Your task to perform on an android device: open sync settings in chrome Image 0: 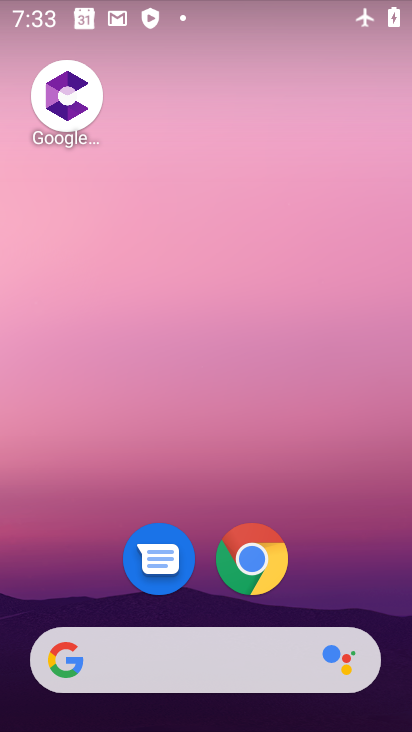
Step 0: click (252, 558)
Your task to perform on an android device: open sync settings in chrome Image 1: 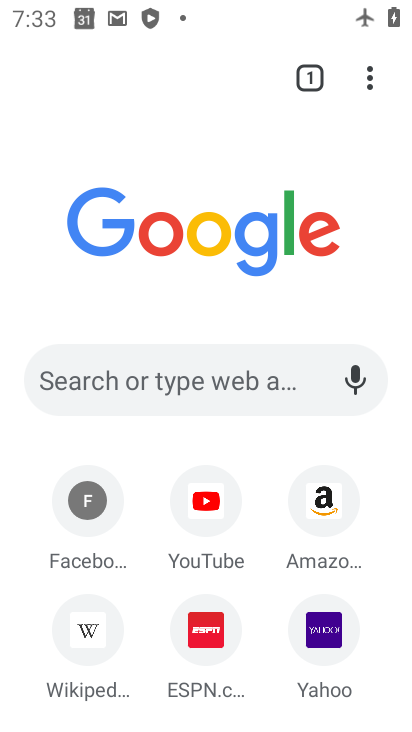
Step 1: click (367, 77)
Your task to perform on an android device: open sync settings in chrome Image 2: 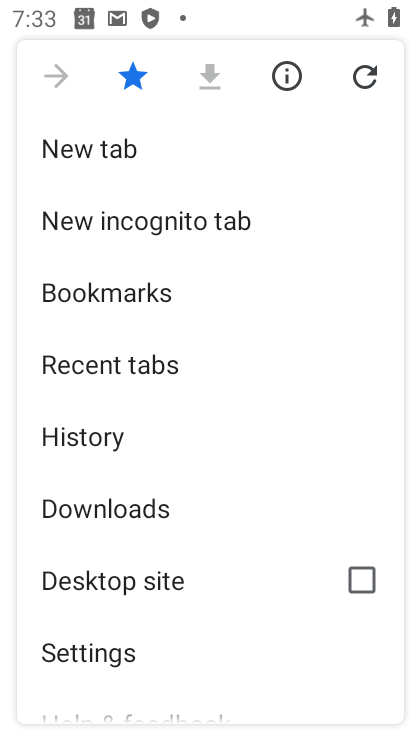
Step 2: click (117, 655)
Your task to perform on an android device: open sync settings in chrome Image 3: 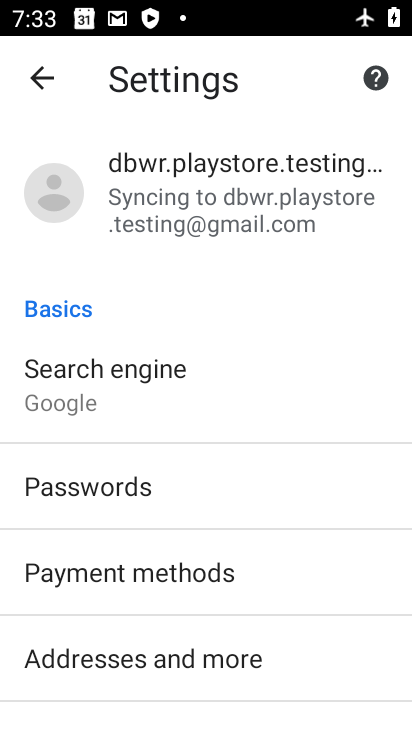
Step 3: drag from (148, 517) to (177, 405)
Your task to perform on an android device: open sync settings in chrome Image 4: 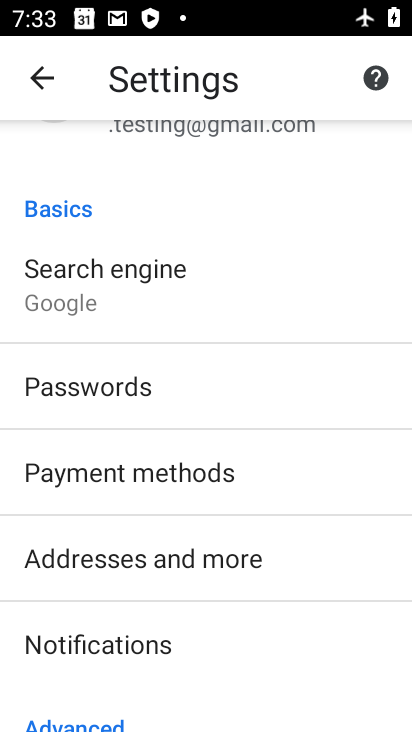
Step 4: drag from (154, 496) to (179, 430)
Your task to perform on an android device: open sync settings in chrome Image 5: 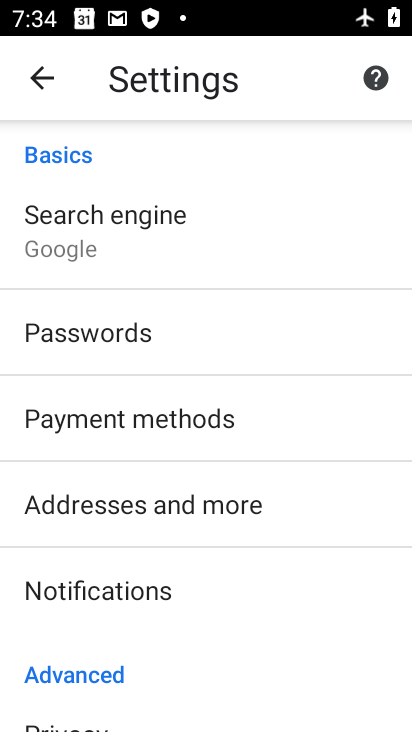
Step 5: drag from (118, 544) to (164, 449)
Your task to perform on an android device: open sync settings in chrome Image 6: 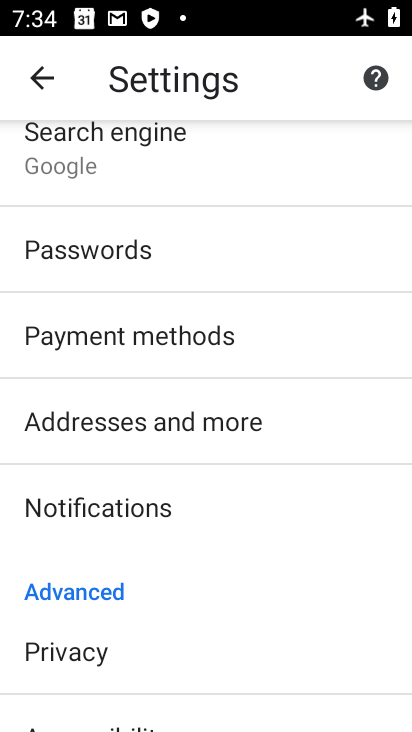
Step 6: drag from (198, 543) to (257, 446)
Your task to perform on an android device: open sync settings in chrome Image 7: 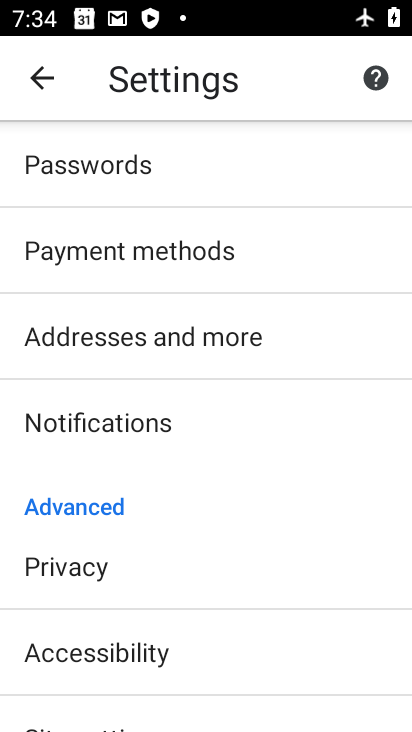
Step 7: drag from (177, 557) to (254, 448)
Your task to perform on an android device: open sync settings in chrome Image 8: 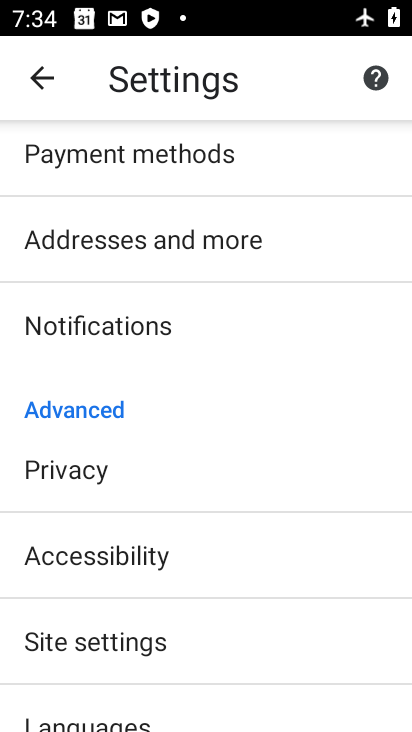
Step 8: drag from (206, 567) to (277, 471)
Your task to perform on an android device: open sync settings in chrome Image 9: 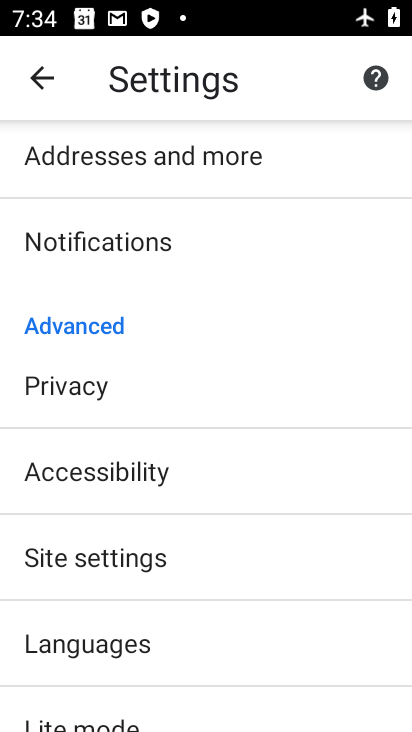
Step 9: click (158, 567)
Your task to perform on an android device: open sync settings in chrome Image 10: 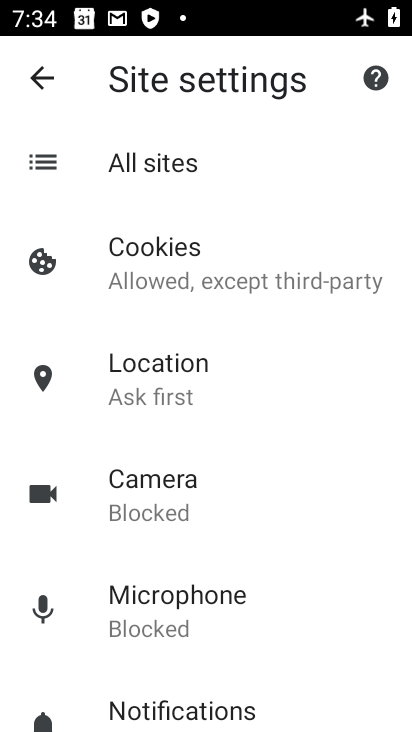
Step 10: drag from (214, 410) to (237, 364)
Your task to perform on an android device: open sync settings in chrome Image 11: 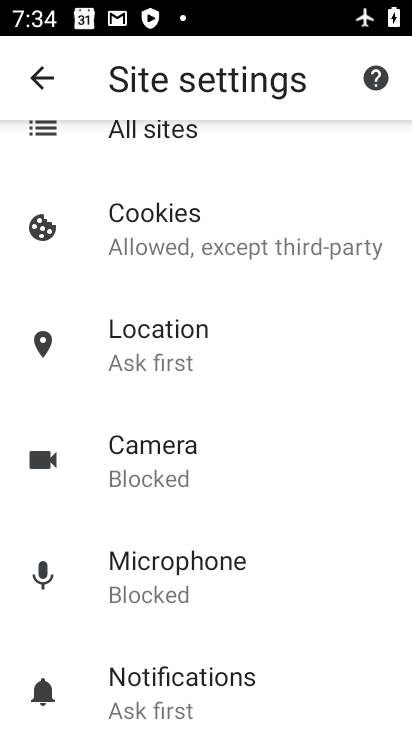
Step 11: drag from (182, 512) to (252, 416)
Your task to perform on an android device: open sync settings in chrome Image 12: 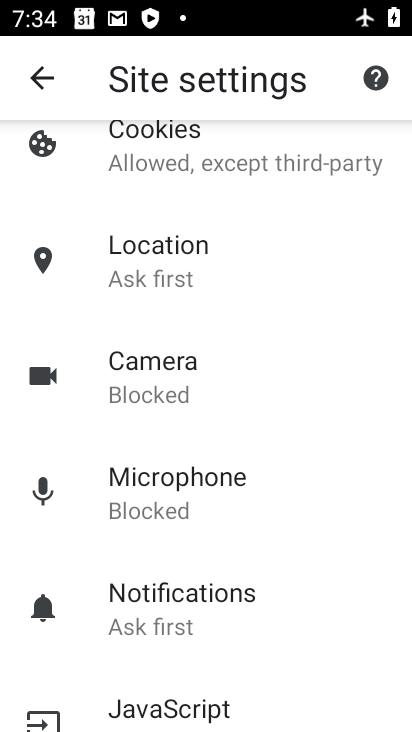
Step 12: drag from (166, 536) to (234, 422)
Your task to perform on an android device: open sync settings in chrome Image 13: 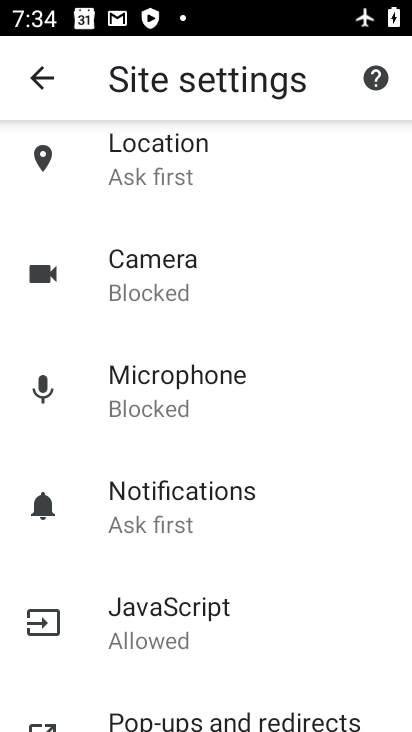
Step 13: drag from (216, 622) to (265, 526)
Your task to perform on an android device: open sync settings in chrome Image 14: 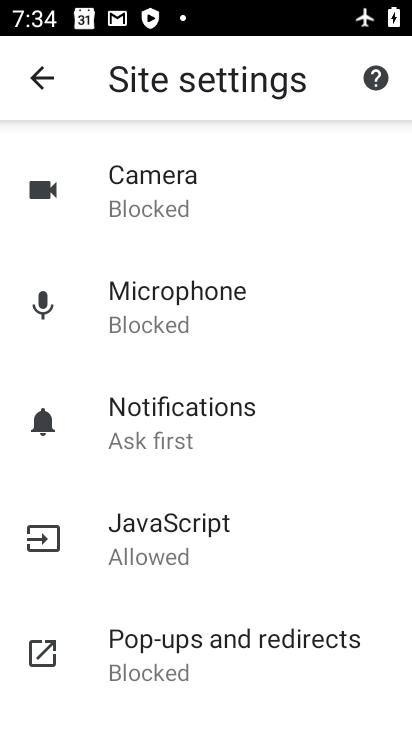
Step 14: drag from (211, 682) to (279, 558)
Your task to perform on an android device: open sync settings in chrome Image 15: 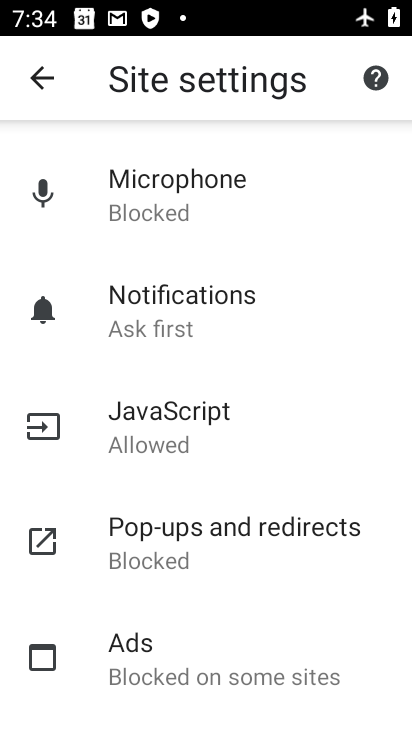
Step 15: drag from (265, 600) to (301, 474)
Your task to perform on an android device: open sync settings in chrome Image 16: 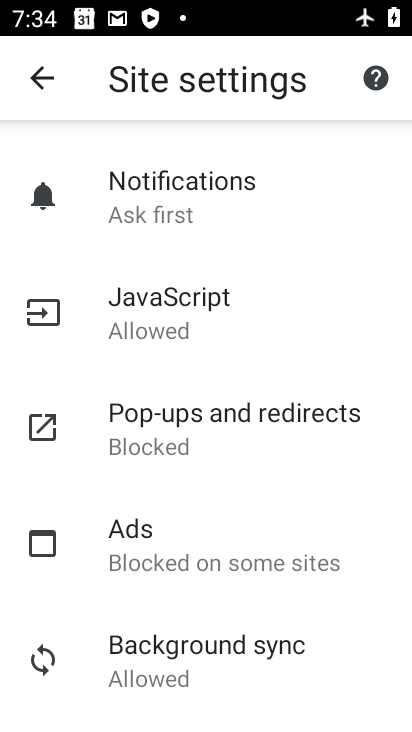
Step 16: drag from (173, 603) to (241, 482)
Your task to perform on an android device: open sync settings in chrome Image 17: 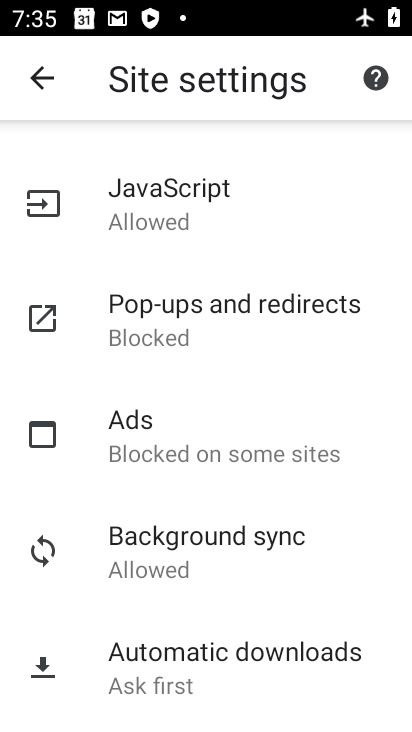
Step 17: click (218, 552)
Your task to perform on an android device: open sync settings in chrome Image 18: 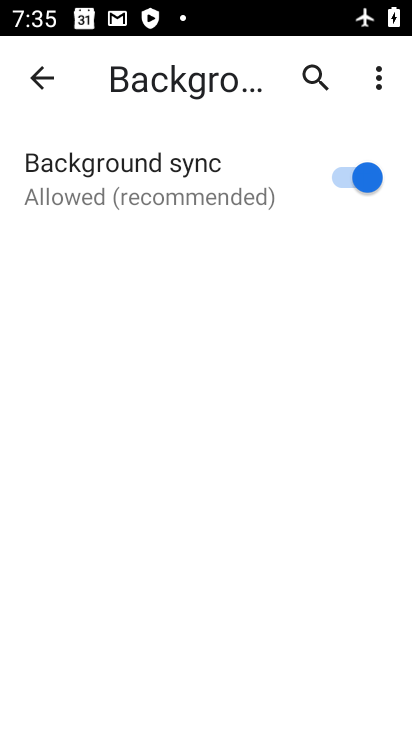
Step 18: task complete